Your task to perform on an android device: Add apple airpods pro to the cart on bestbuy, then select checkout. Image 0: 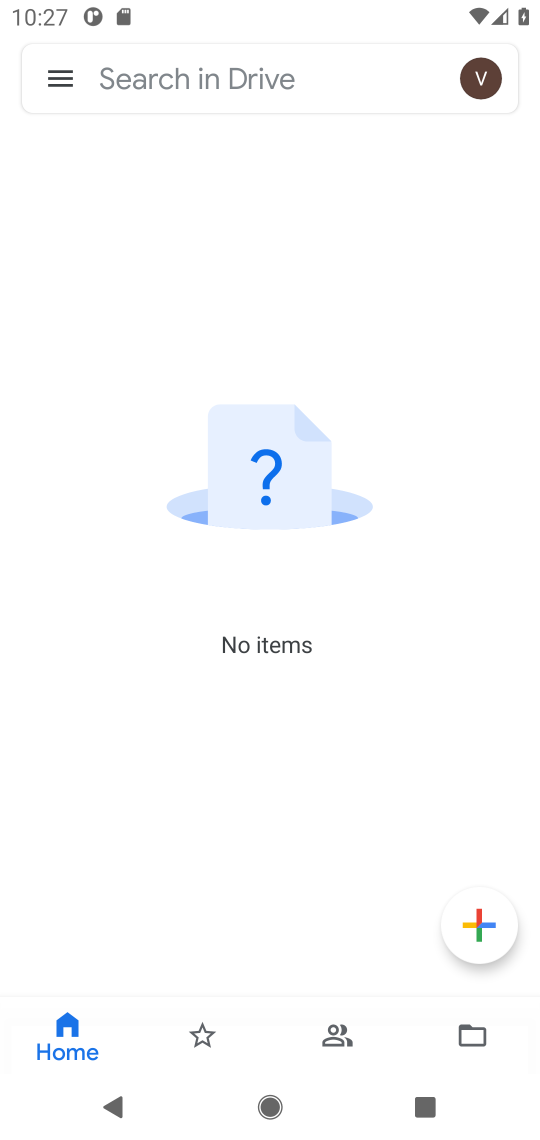
Step 0: press home button
Your task to perform on an android device: Add apple airpods pro to the cart on bestbuy, then select checkout. Image 1: 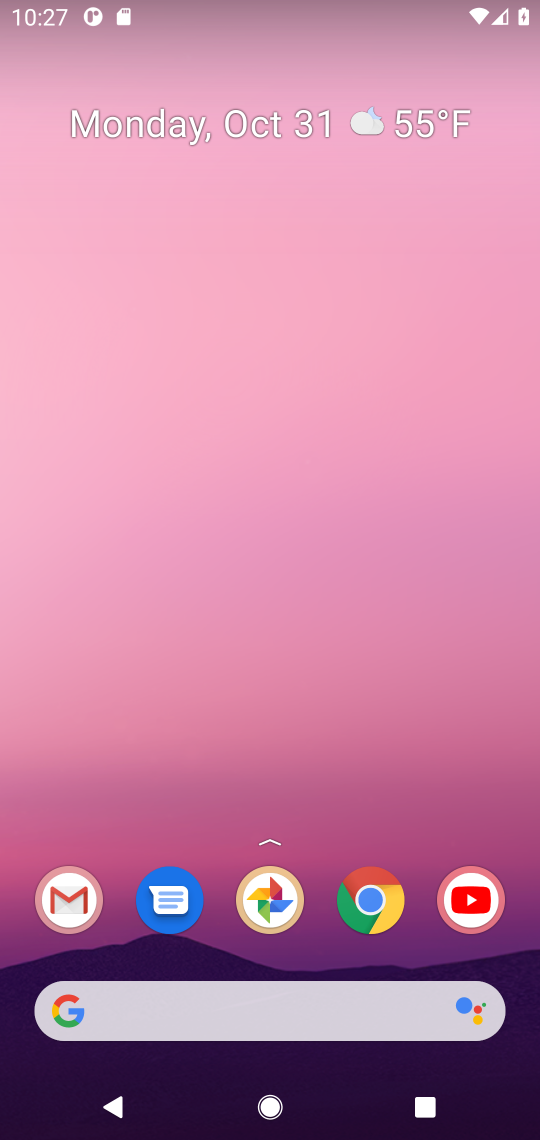
Step 1: click (374, 907)
Your task to perform on an android device: Add apple airpods pro to the cart on bestbuy, then select checkout. Image 2: 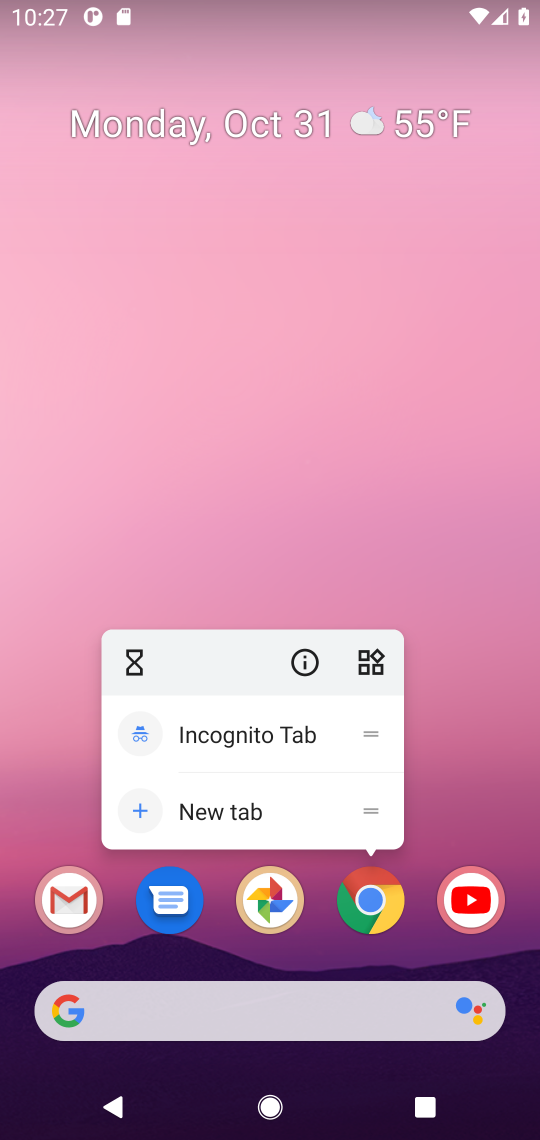
Step 2: click (374, 907)
Your task to perform on an android device: Add apple airpods pro to the cart on bestbuy, then select checkout. Image 3: 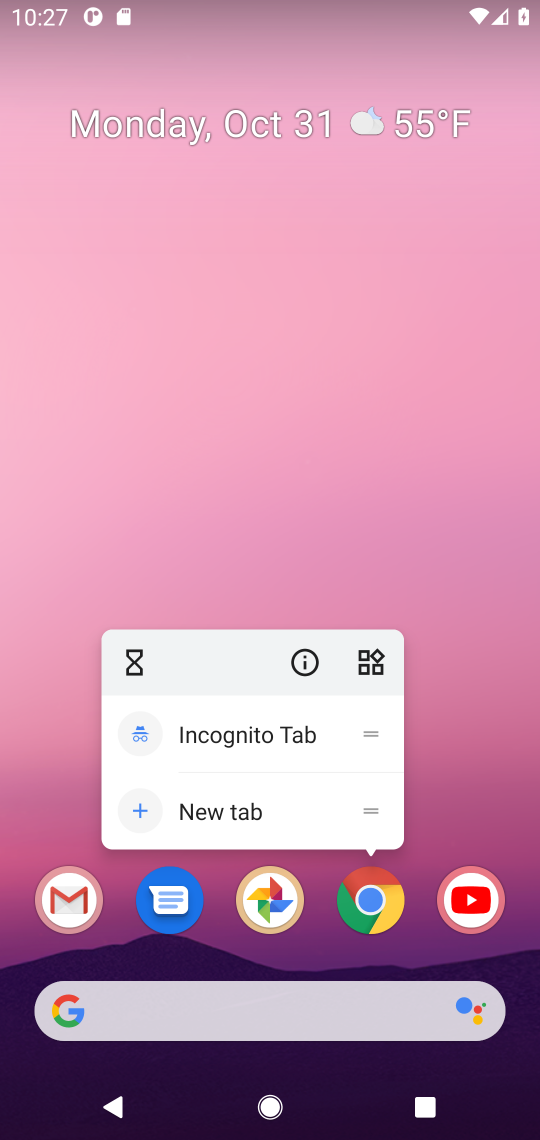
Step 3: click (374, 907)
Your task to perform on an android device: Add apple airpods pro to the cart on bestbuy, then select checkout. Image 4: 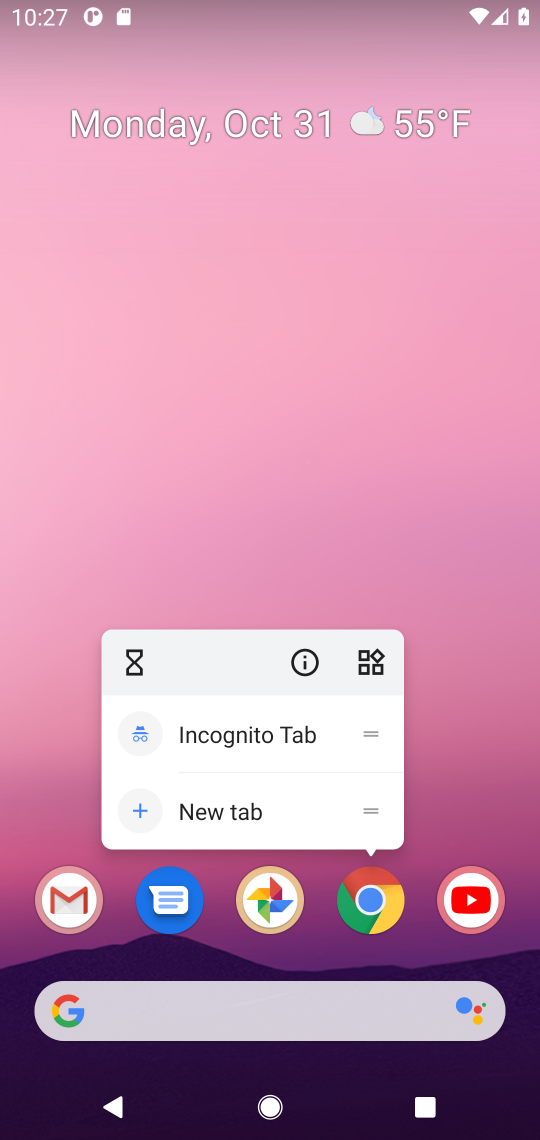
Step 4: click (455, 778)
Your task to perform on an android device: Add apple airpods pro to the cart on bestbuy, then select checkout. Image 5: 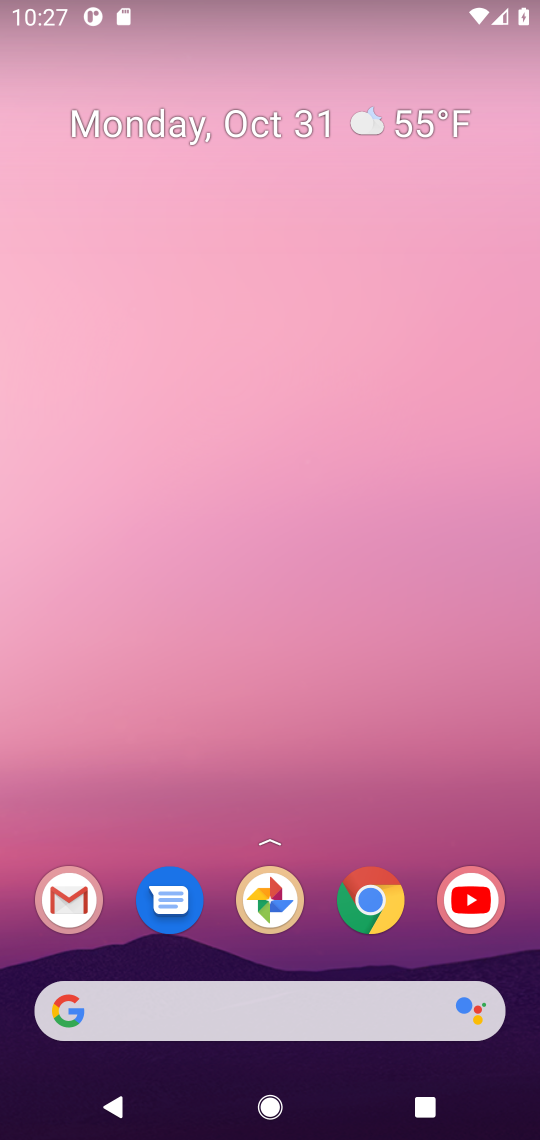
Step 5: click (362, 915)
Your task to perform on an android device: Add apple airpods pro to the cart on bestbuy, then select checkout. Image 6: 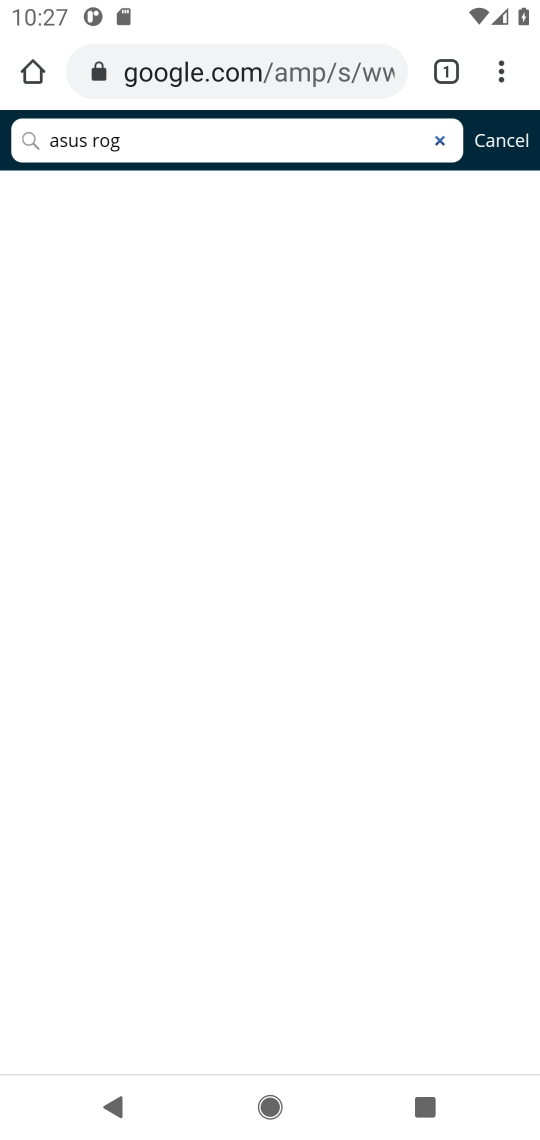
Step 6: click (186, 84)
Your task to perform on an android device: Add apple airpods pro to the cart on bestbuy, then select checkout. Image 7: 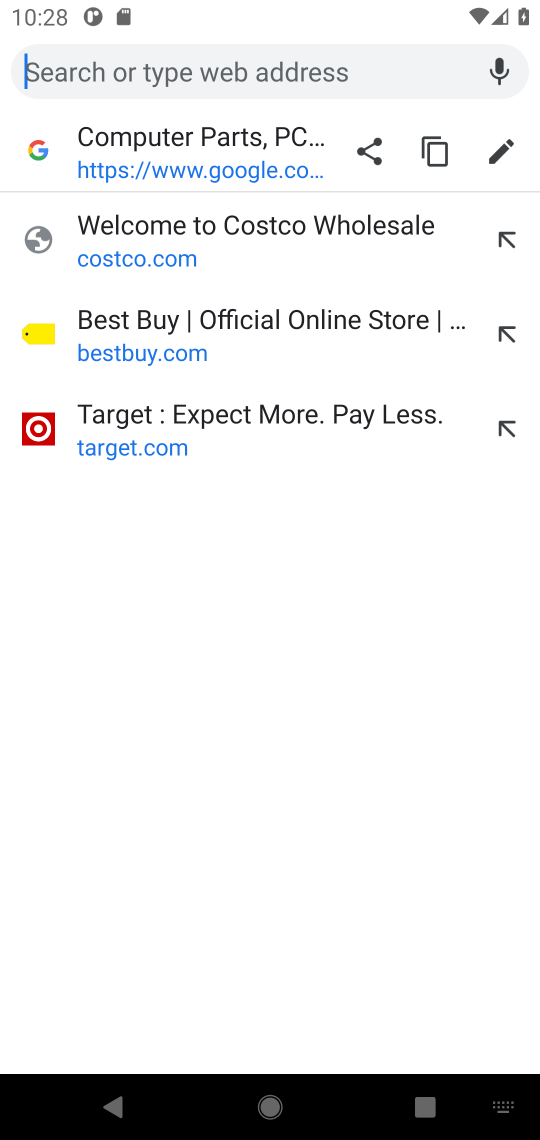
Step 7: type "bestbuy"
Your task to perform on an android device: Add apple airpods pro to the cart on bestbuy, then select checkout. Image 8: 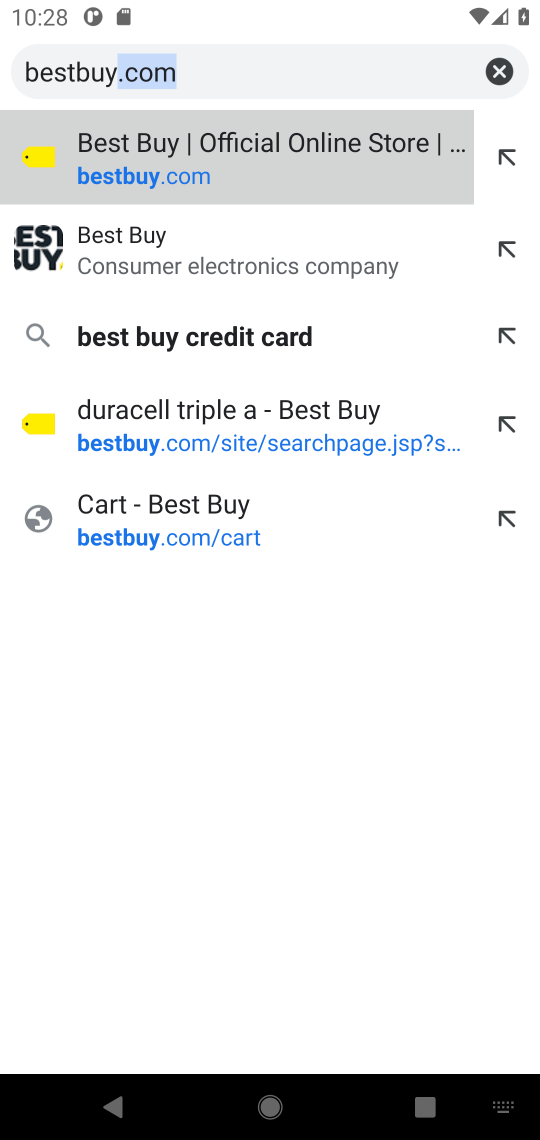
Step 8: click (155, 181)
Your task to perform on an android device: Add apple airpods pro to the cart on bestbuy, then select checkout. Image 9: 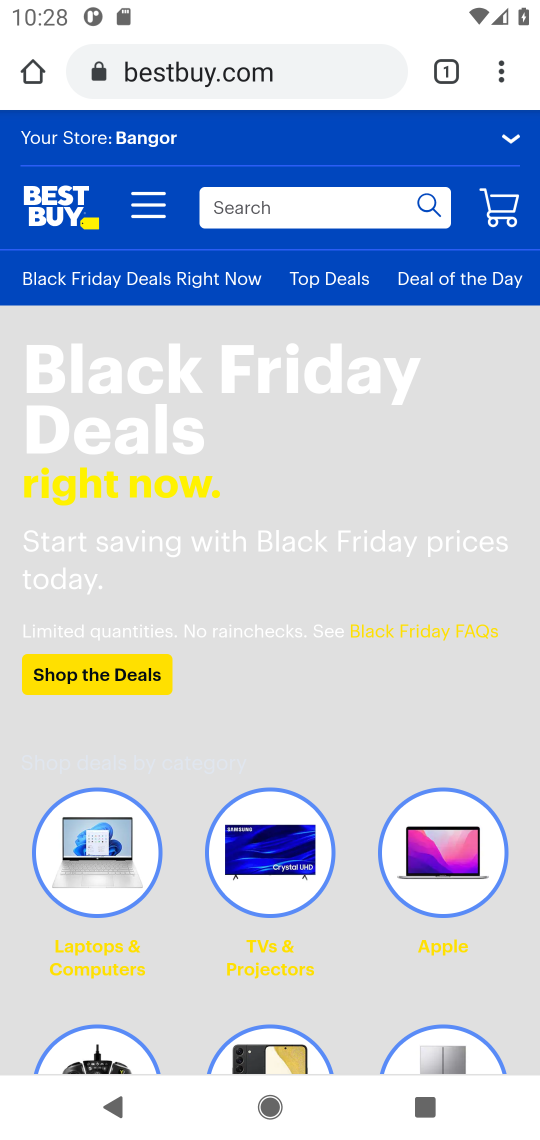
Step 9: click (306, 209)
Your task to perform on an android device: Add apple airpods pro to the cart on bestbuy, then select checkout. Image 10: 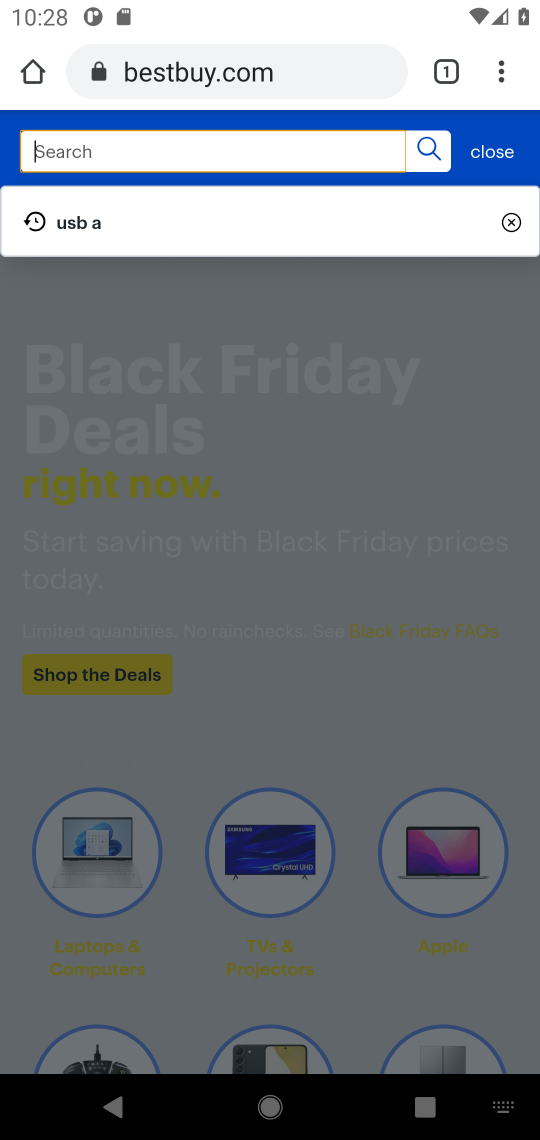
Step 10: type " apple airpods pro"
Your task to perform on an android device: Add apple airpods pro to the cart on bestbuy, then select checkout. Image 11: 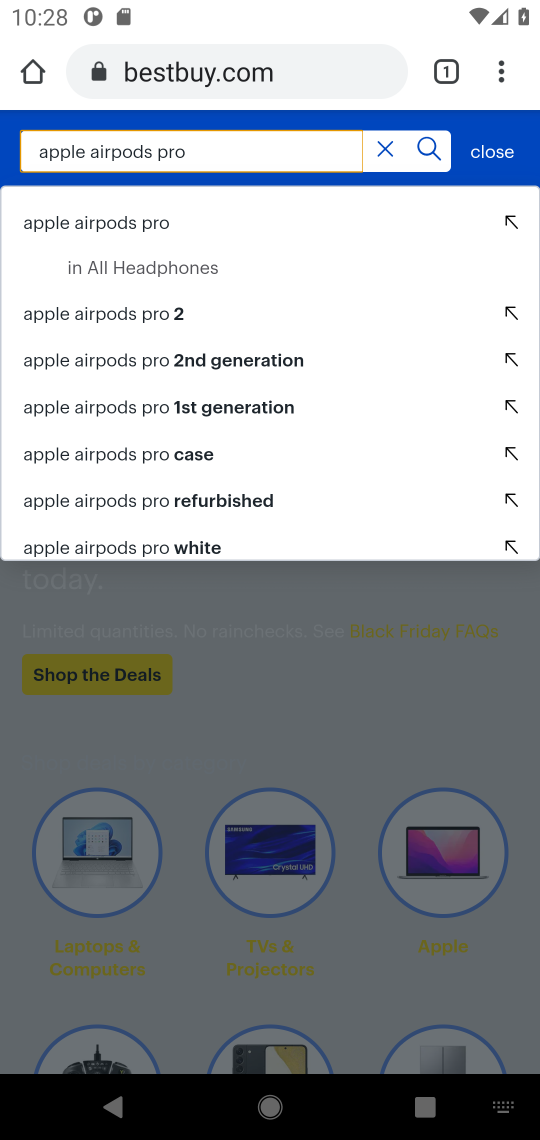
Step 11: click (151, 230)
Your task to perform on an android device: Add apple airpods pro to the cart on bestbuy, then select checkout. Image 12: 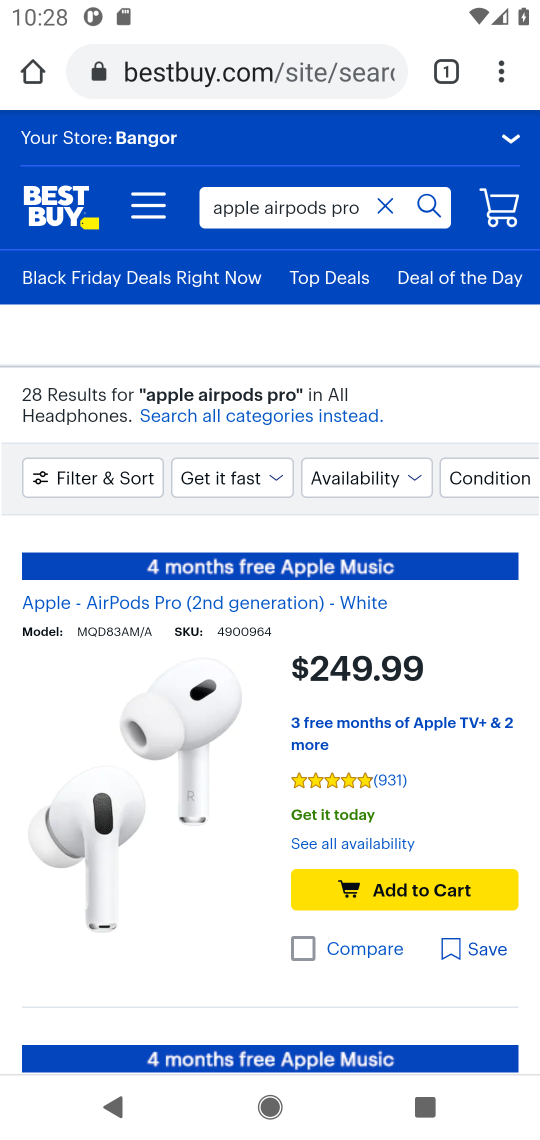
Step 12: click (185, 816)
Your task to perform on an android device: Add apple airpods pro to the cart on bestbuy, then select checkout. Image 13: 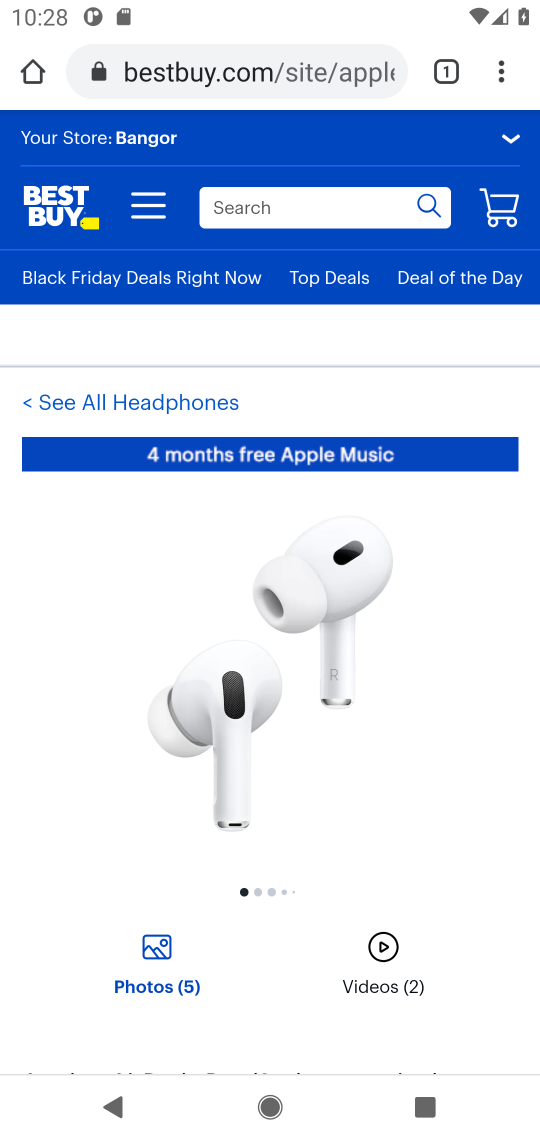
Step 13: drag from (307, 813) to (347, 202)
Your task to perform on an android device: Add apple airpods pro to the cart on bestbuy, then select checkout. Image 14: 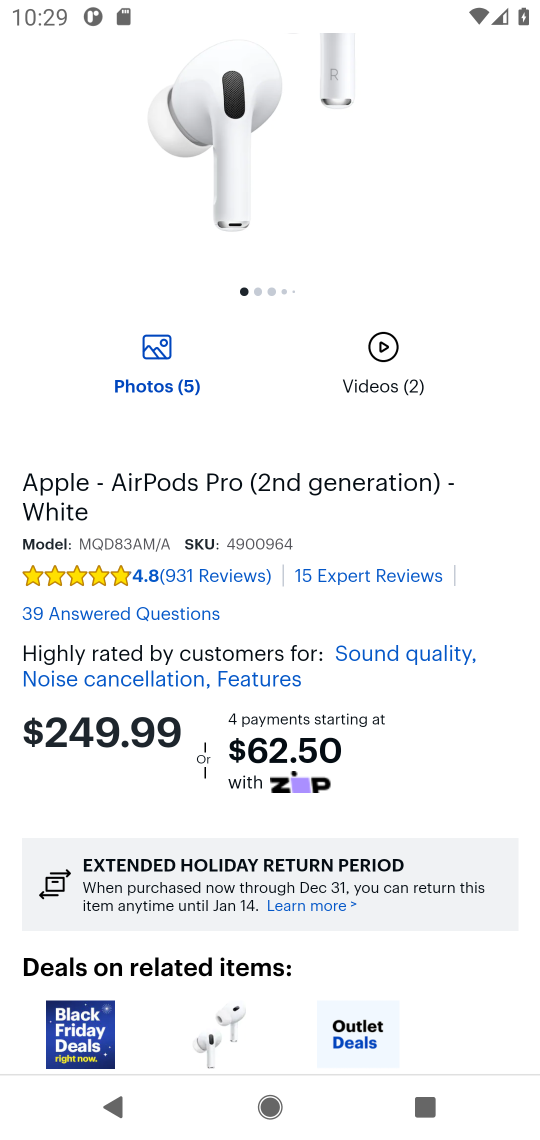
Step 14: drag from (270, 796) to (300, 254)
Your task to perform on an android device: Add apple airpods pro to the cart on bestbuy, then select checkout. Image 15: 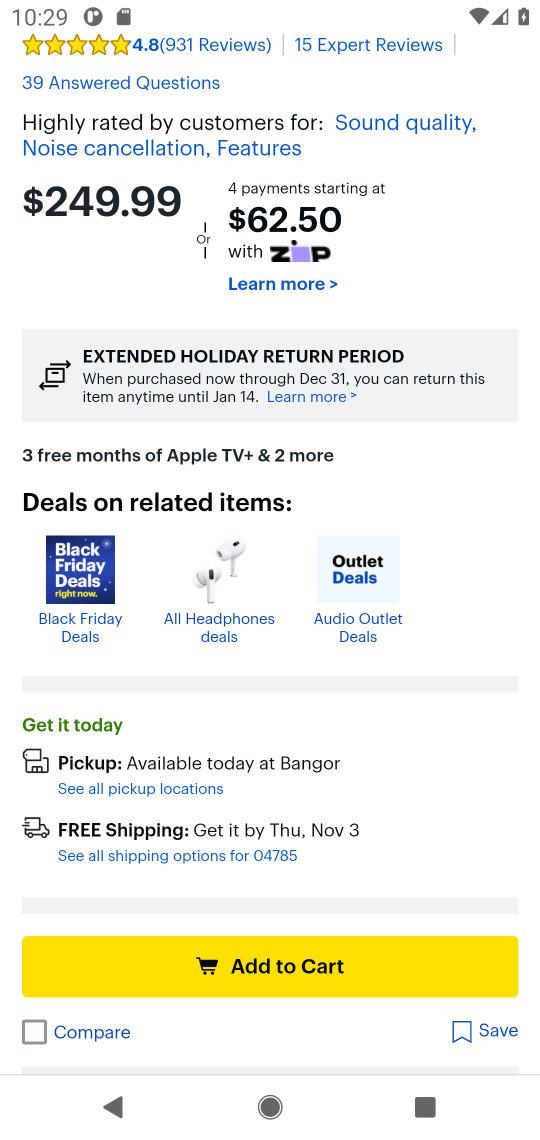
Step 15: click (250, 963)
Your task to perform on an android device: Add apple airpods pro to the cart on bestbuy, then select checkout. Image 16: 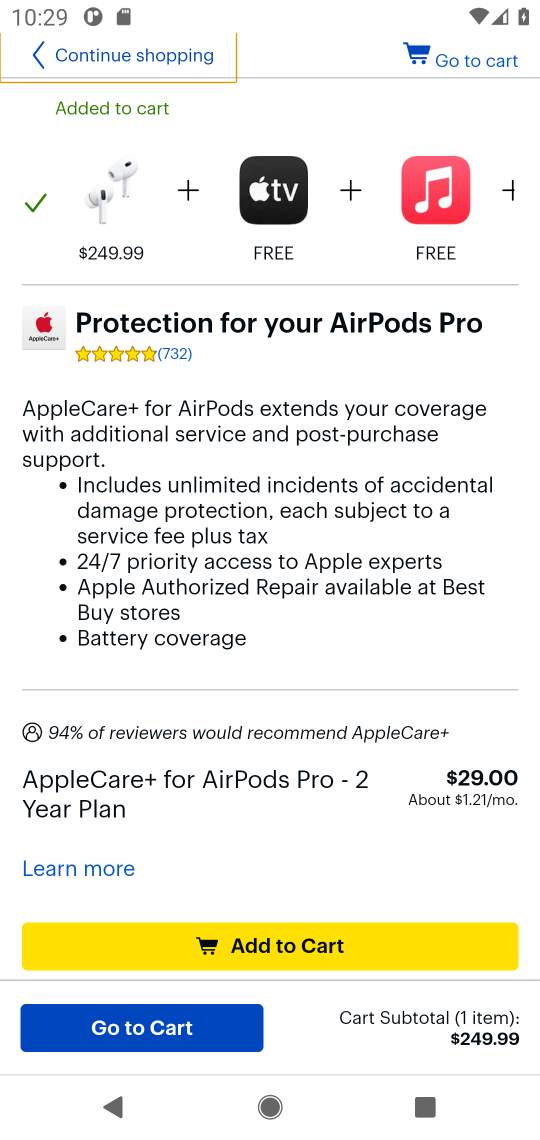
Step 16: drag from (293, 740) to (292, 314)
Your task to perform on an android device: Add apple airpods pro to the cart on bestbuy, then select checkout. Image 17: 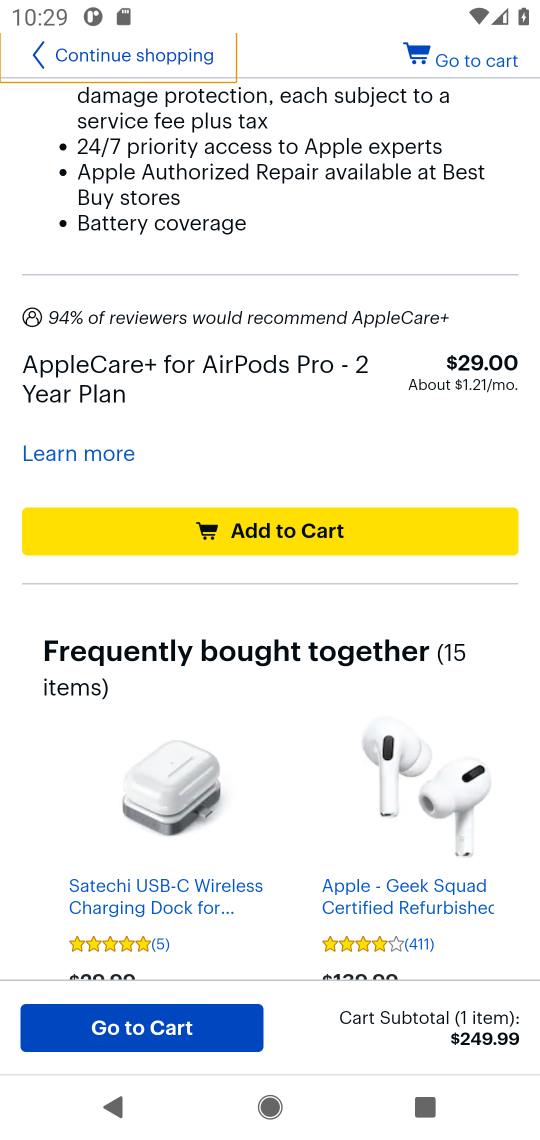
Step 17: drag from (305, 374) to (297, 786)
Your task to perform on an android device: Add apple airpods pro to the cart on bestbuy, then select checkout. Image 18: 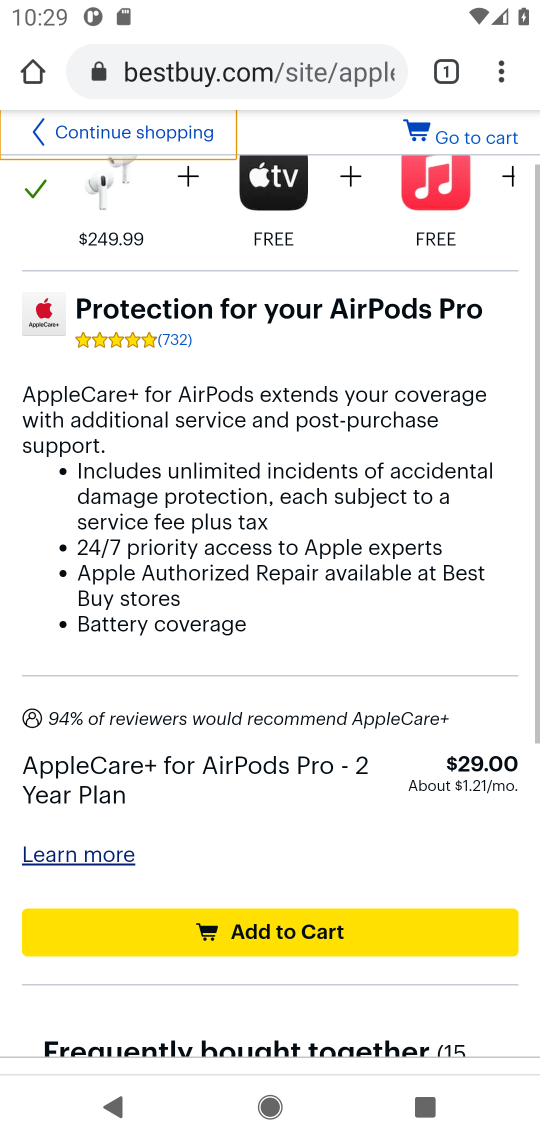
Step 18: drag from (307, 373) to (318, 767)
Your task to perform on an android device: Add apple airpods pro to the cart on bestbuy, then select checkout. Image 19: 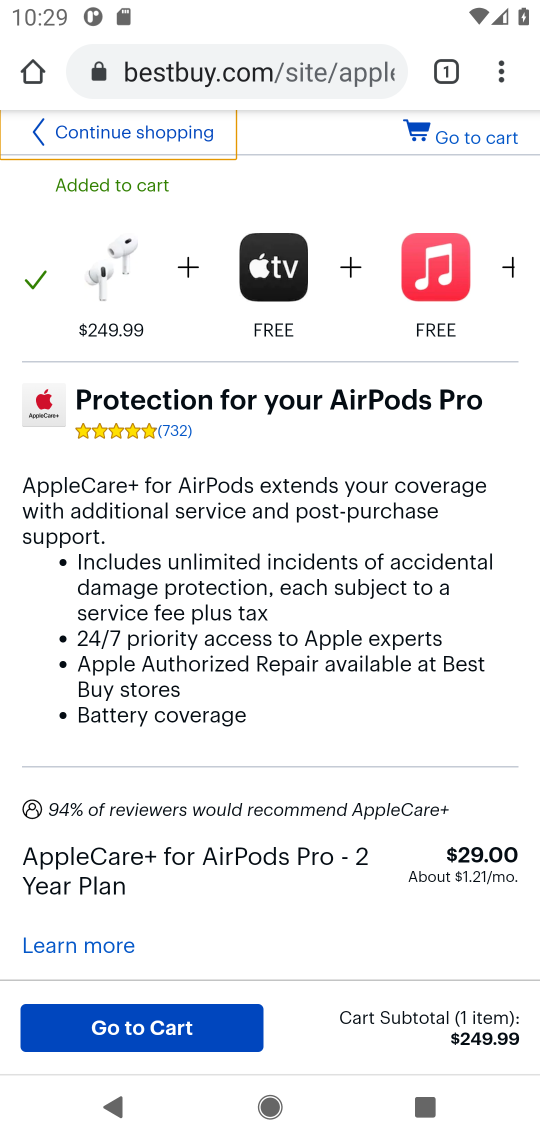
Step 19: click (461, 143)
Your task to perform on an android device: Add apple airpods pro to the cart on bestbuy, then select checkout. Image 20: 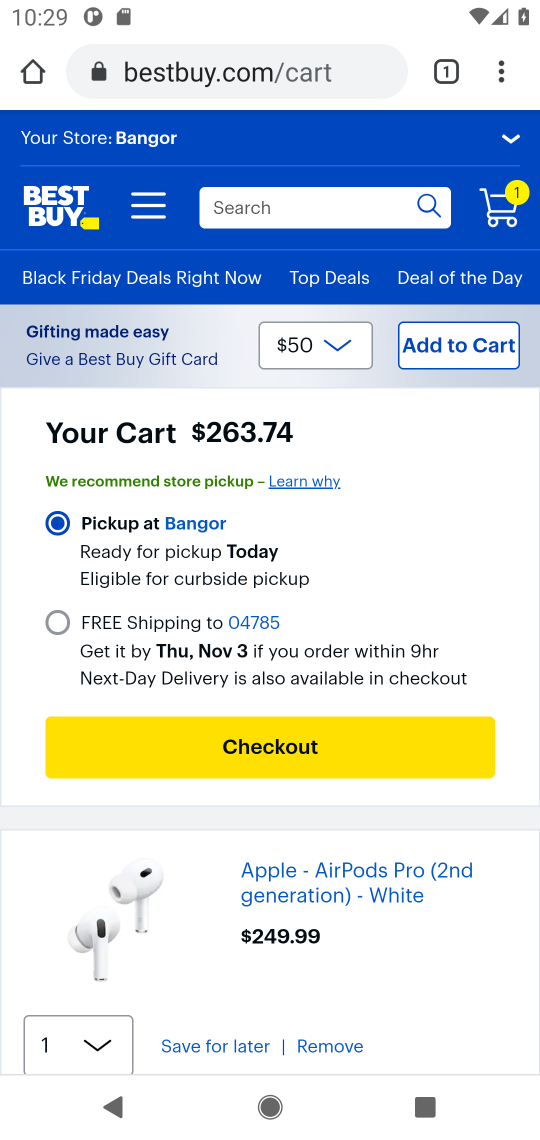
Step 20: click (274, 743)
Your task to perform on an android device: Add apple airpods pro to the cart on bestbuy, then select checkout. Image 21: 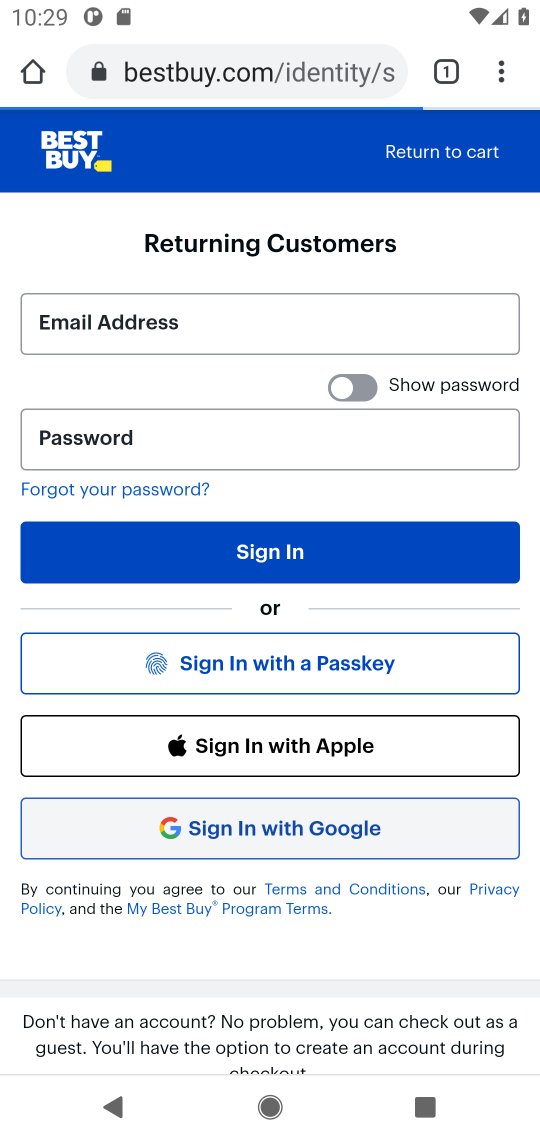
Step 21: task complete